Your task to perform on an android device: change the clock display to digital Image 0: 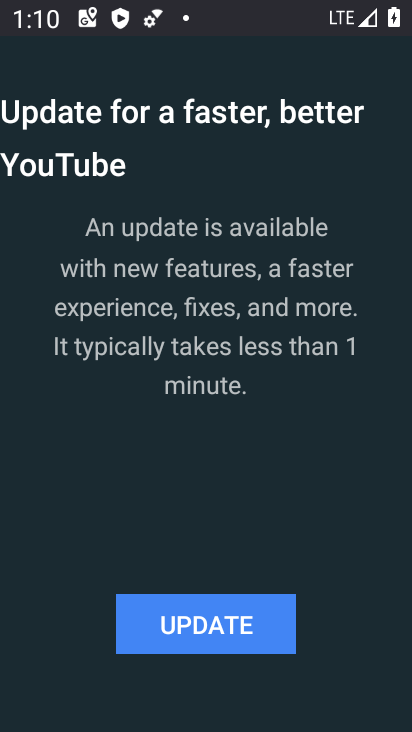
Step 0: drag from (378, 582) to (208, 139)
Your task to perform on an android device: change the clock display to digital Image 1: 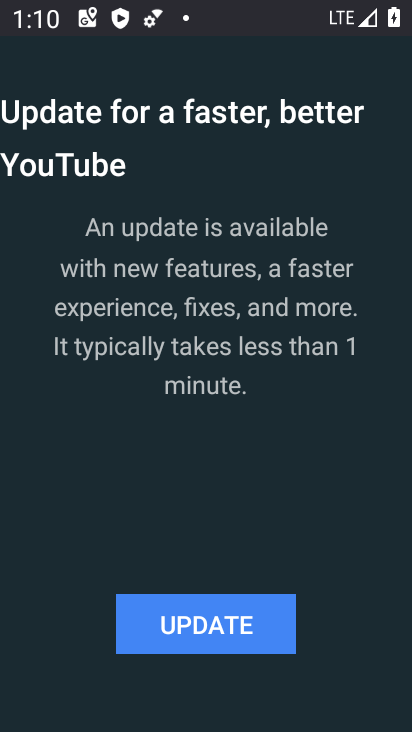
Step 1: press home button
Your task to perform on an android device: change the clock display to digital Image 2: 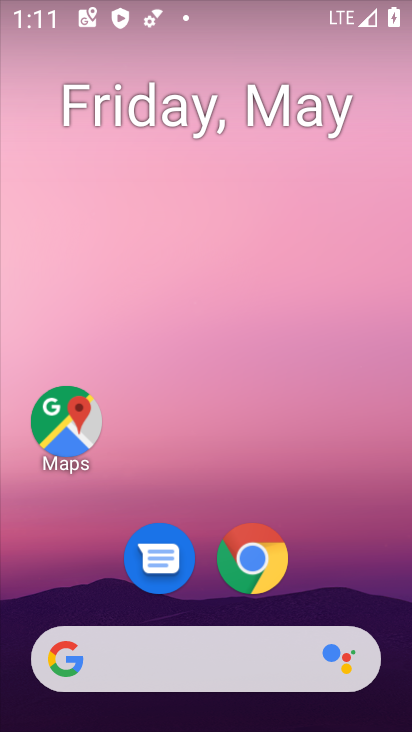
Step 2: drag from (352, 600) to (324, 29)
Your task to perform on an android device: change the clock display to digital Image 3: 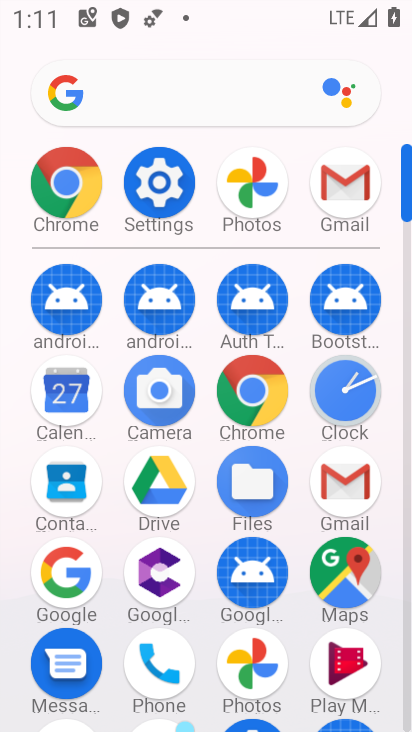
Step 3: click (351, 384)
Your task to perform on an android device: change the clock display to digital Image 4: 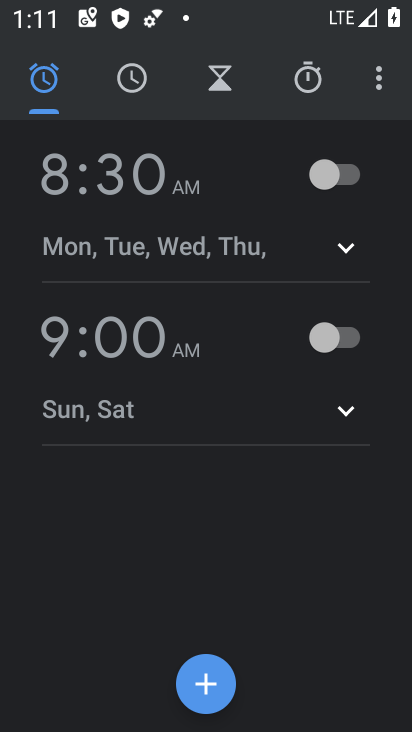
Step 4: click (394, 87)
Your task to perform on an android device: change the clock display to digital Image 5: 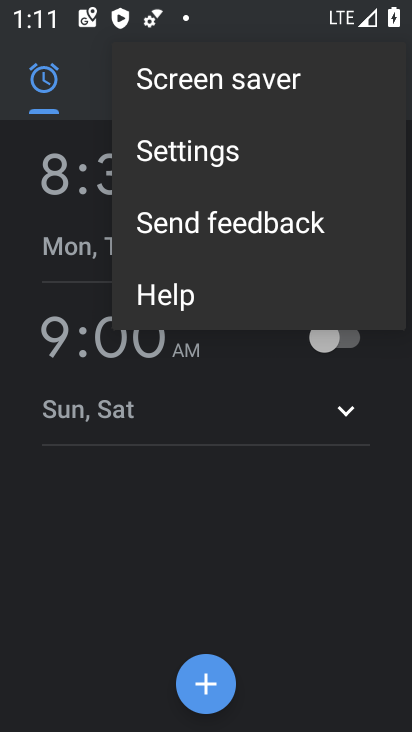
Step 5: click (270, 156)
Your task to perform on an android device: change the clock display to digital Image 6: 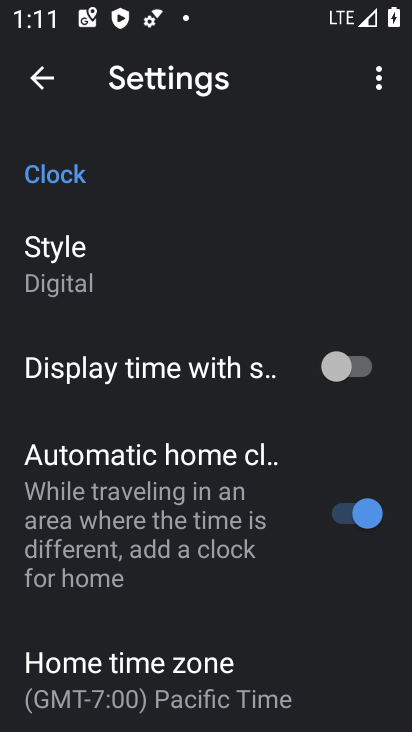
Step 6: click (130, 249)
Your task to perform on an android device: change the clock display to digital Image 7: 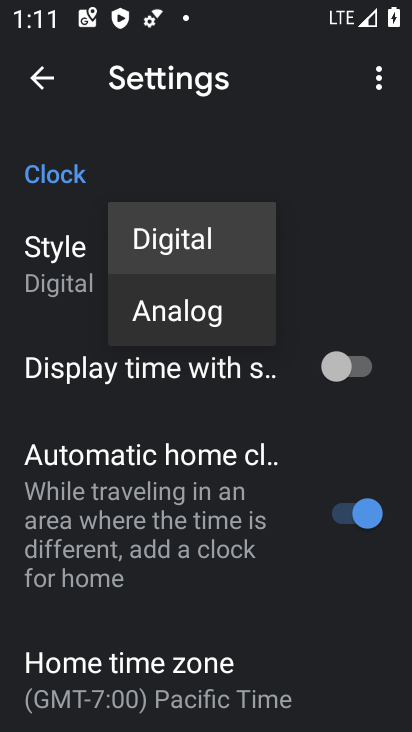
Step 7: click (180, 227)
Your task to perform on an android device: change the clock display to digital Image 8: 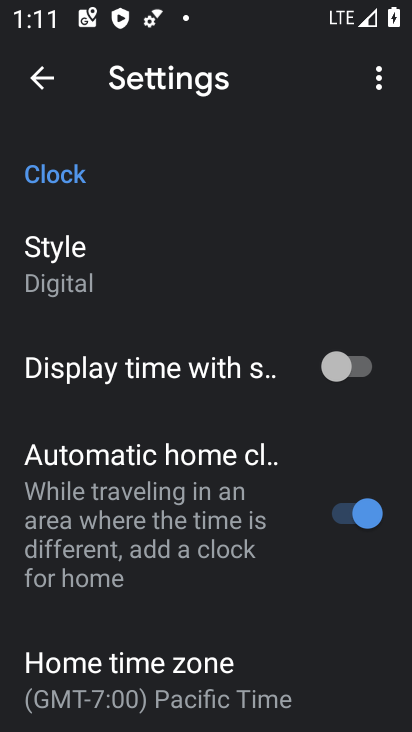
Step 8: task complete